Your task to perform on an android device: allow cookies in the chrome app Image 0: 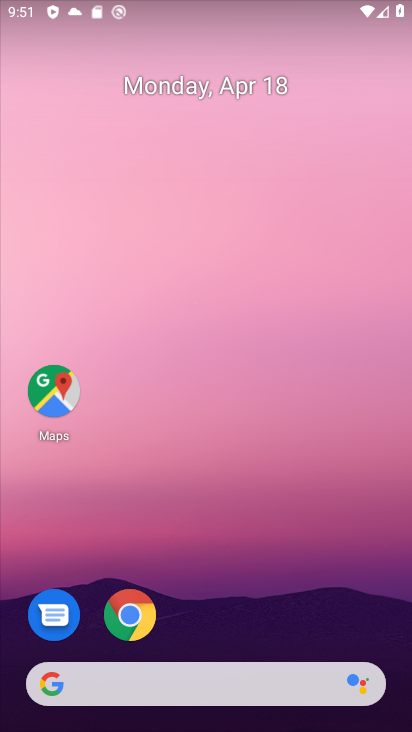
Step 0: click (122, 615)
Your task to perform on an android device: allow cookies in the chrome app Image 1: 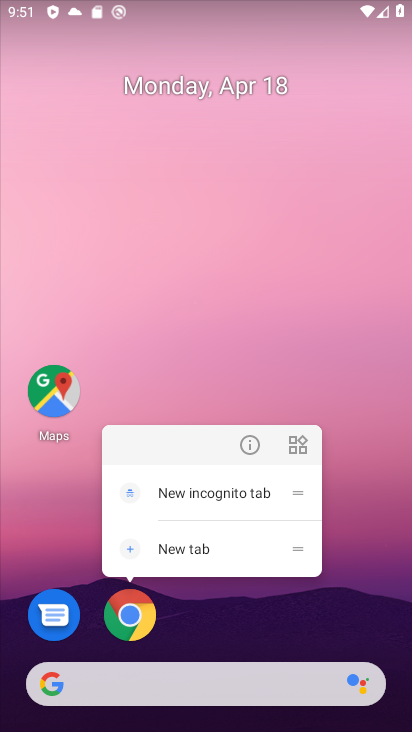
Step 1: click (137, 624)
Your task to perform on an android device: allow cookies in the chrome app Image 2: 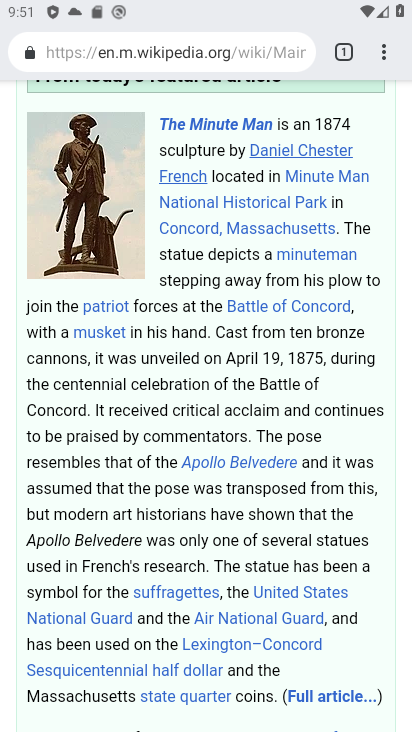
Step 2: click (385, 54)
Your task to perform on an android device: allow cookies in the chrome app Image 3: 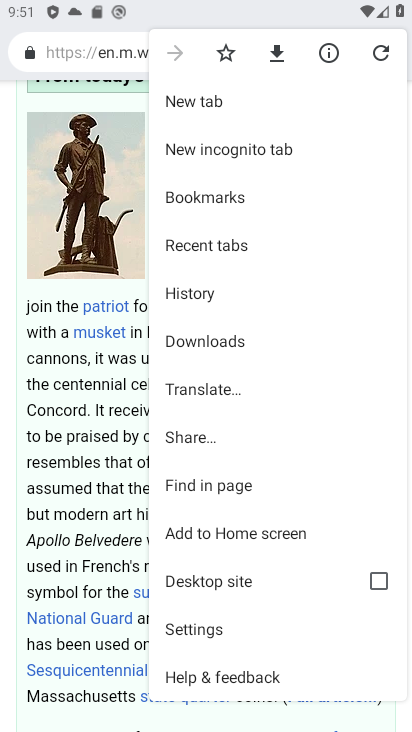
Step 3: click (211, 629)
Your task to perform on an android device: allow cookies in the chrome app Image 4: 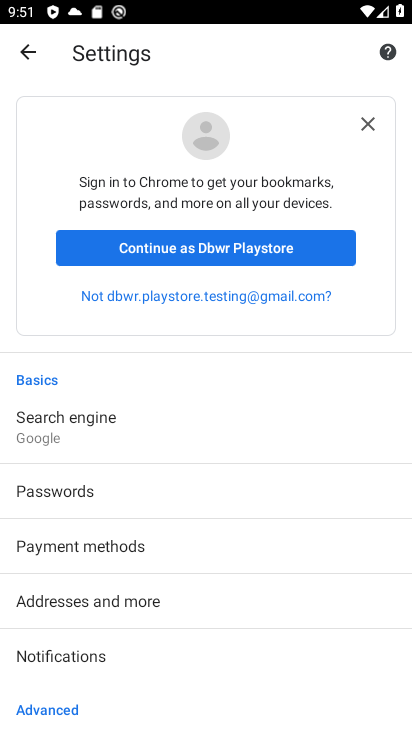
Step 4: drag from (179, 529) to (181, 142)
Your task to perform on an android device: allow cookies in the chrome app Image 5: 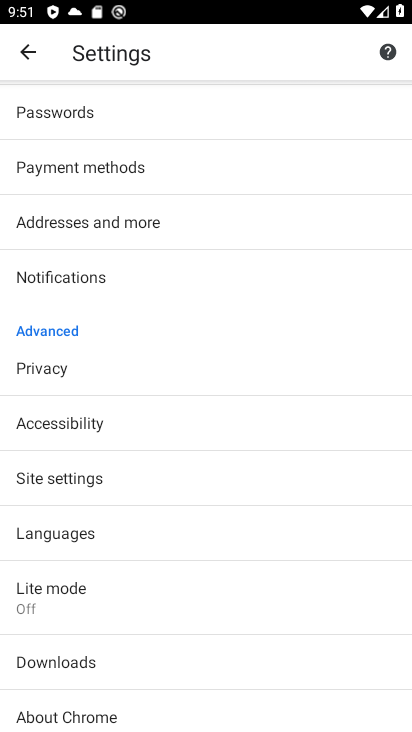
Step 5: drag from (268, 503) to (240, 205)
Your task to perform on an android device: allow cookies in the chrome app Image 6: 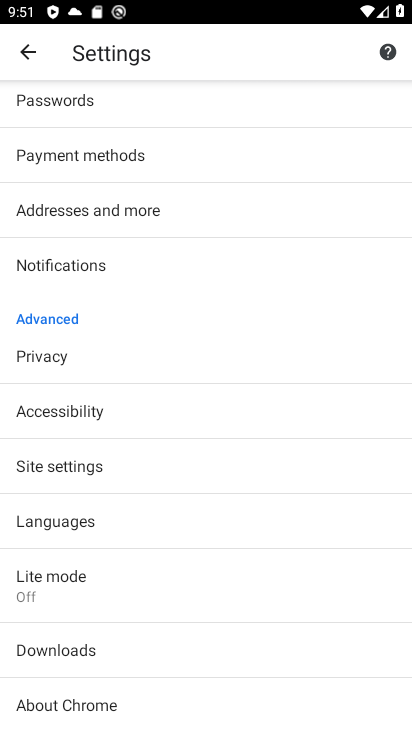
Step 6: click (90, 470)
Your task to perform on an android device: allow cookies in the chrome app Image 7: 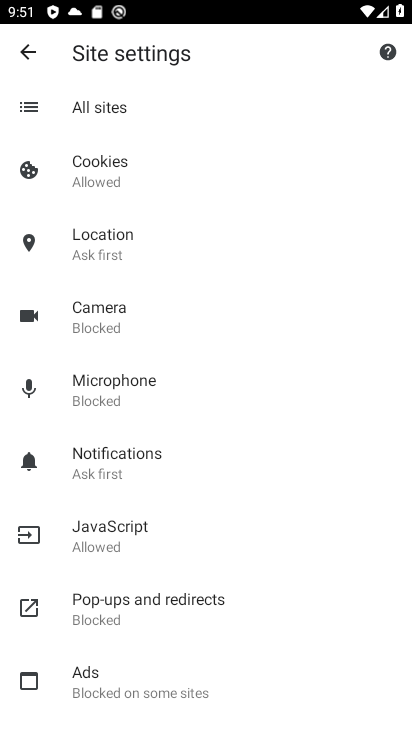
Step 7: click (134, 177)
Your task to perform on an android device: allow cookies in the chrome app Image 8: 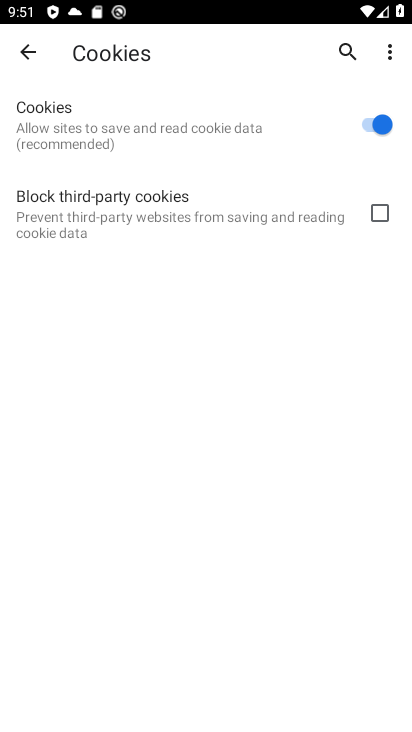
Step 8: task complete